Your task to perform on an android device: turn on the 12-hour format for clock Image 0: 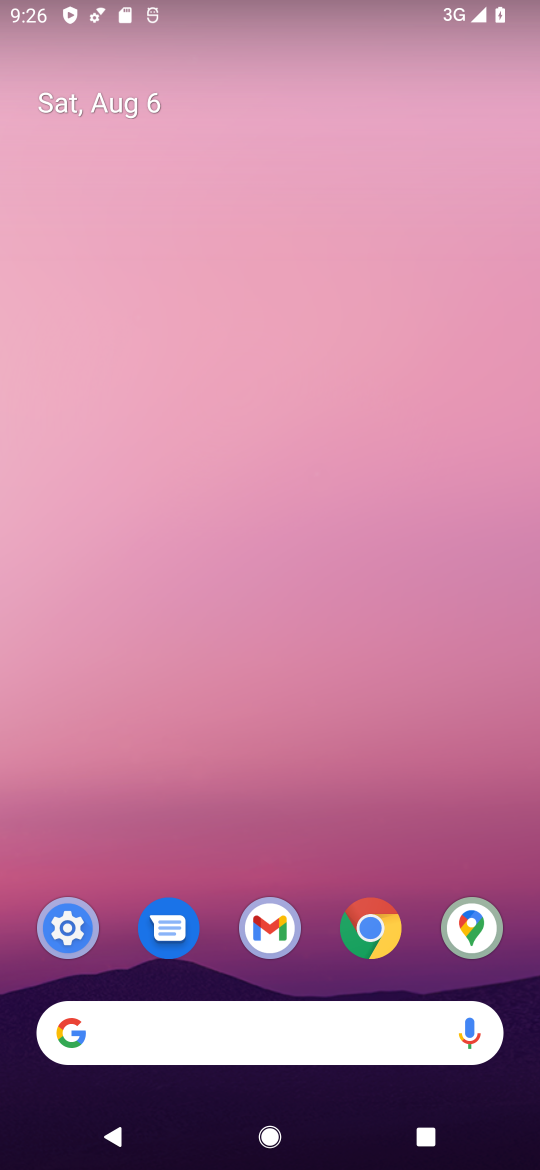
Step 0: drag from (265, 816) to (221, 92)
Your task to perform on an android device: turn on the 12-hour format for clock Image 1: 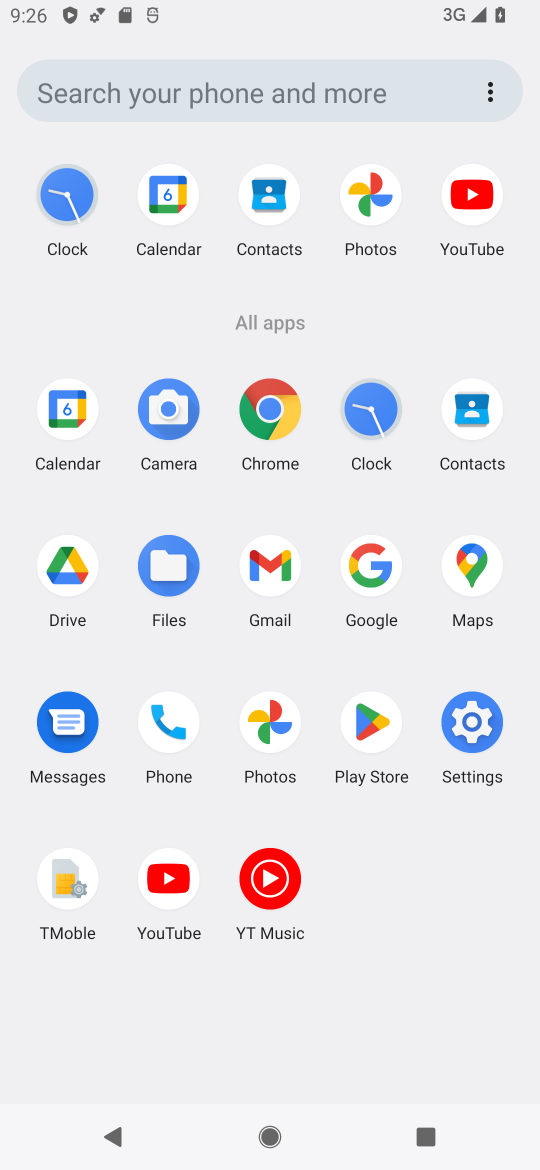
Step 1: click (383, 408)
Your task to perform on an android device: turn on the 12-hour format for clock Image 2: 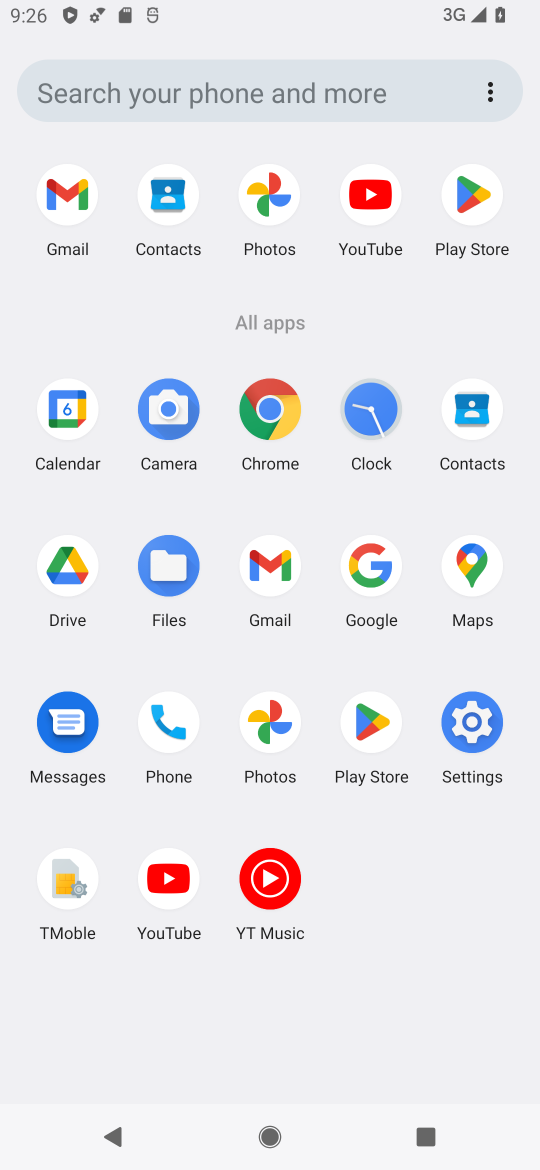
Step 2: click (366, 420)
Your task to perform on an android device: turn on the 12-hour format for clock Image 3: 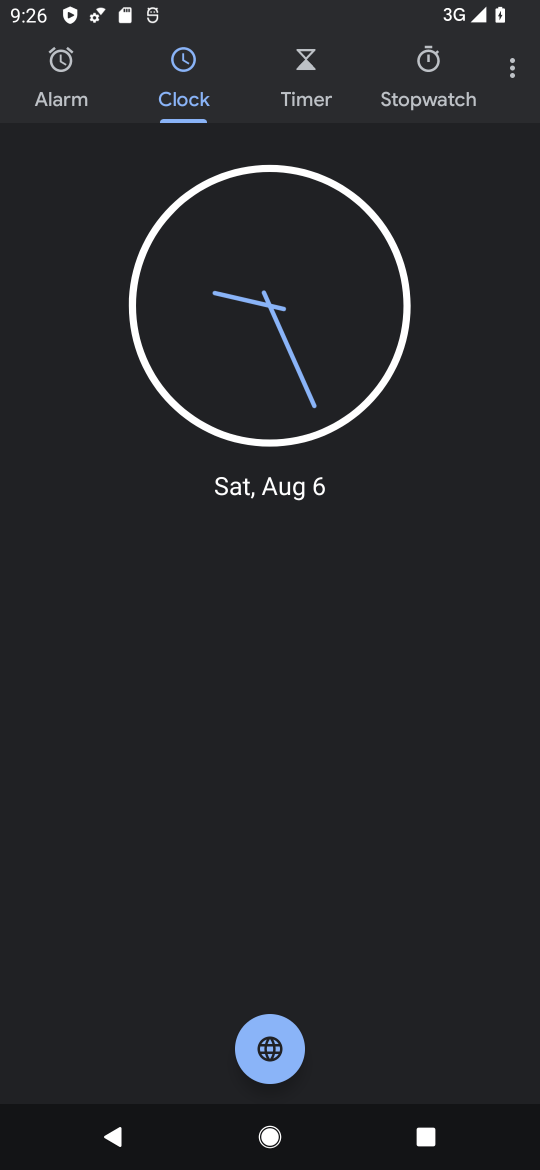
Step 3: click (518, 58)
Your task to perform on an android device: turn on the 12-hour format for clock Image 4: 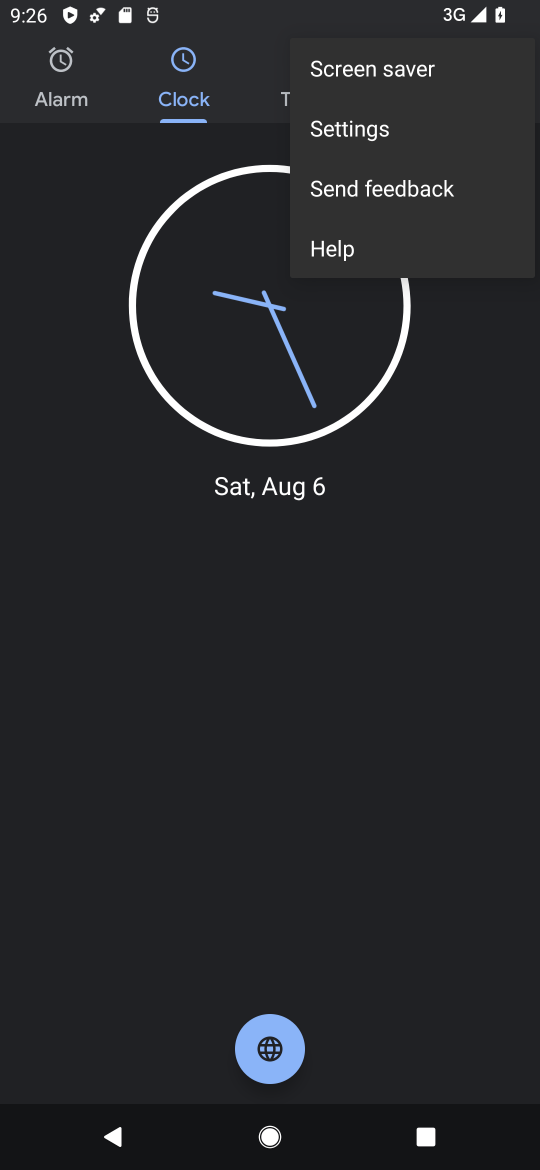
Step 4: click (371, 126)
Your task to perform on an android device: turn on the 12-hour format for clock Image 5: 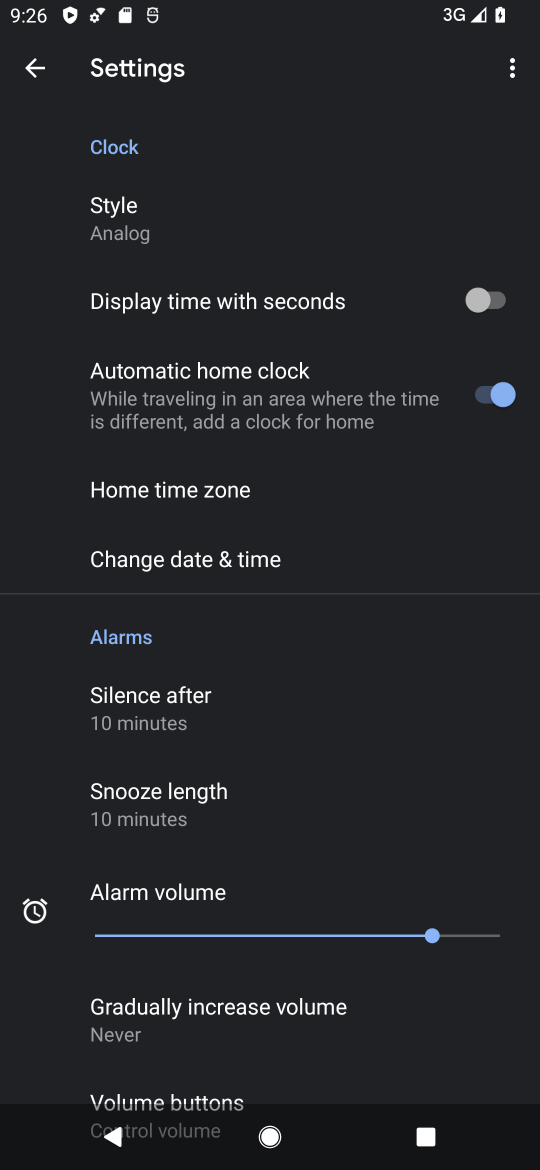
Step 5: click (189, 551)
Your task to perform on an android device: turn on the 12-hour format for clock Image 6: 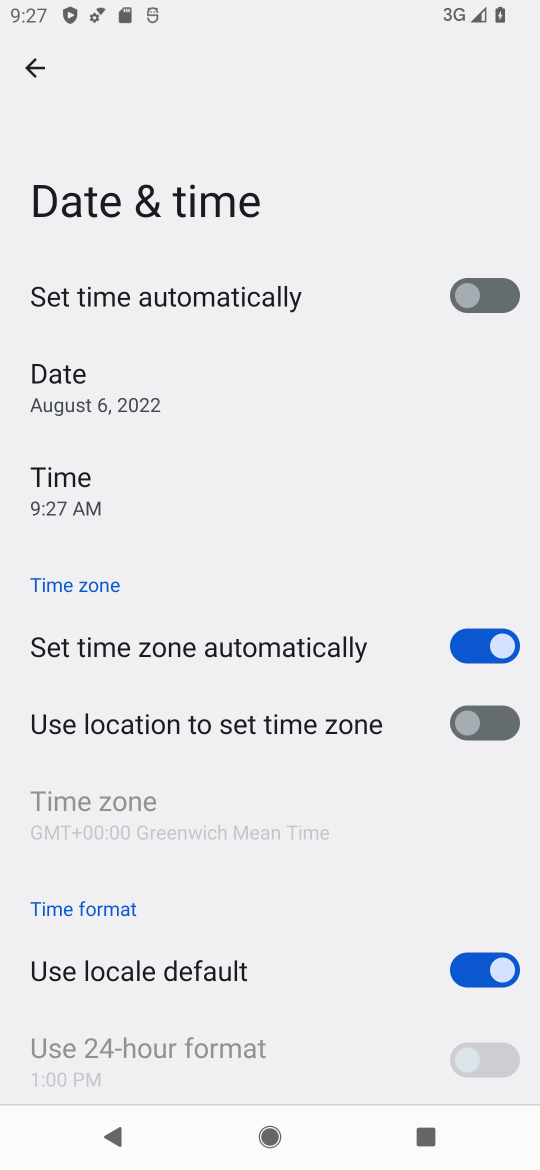
Step 6: task complete